Your task to perform on an android device: What's on my calendar tomorrow? Image 0: 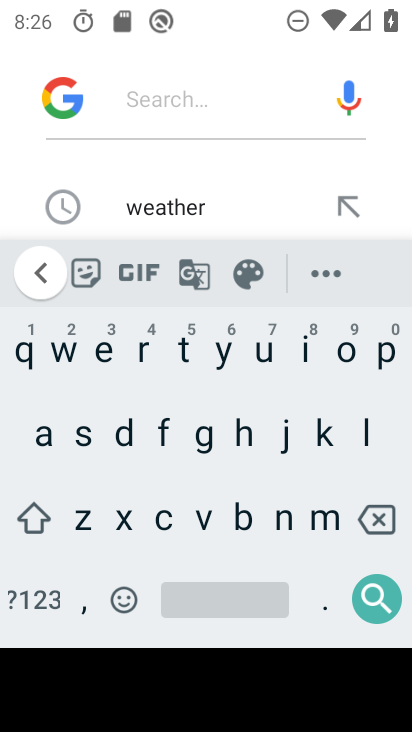
Step 0: press home button
Your task to perform on an android device: What's on my calendar tomorrow? Image 1: 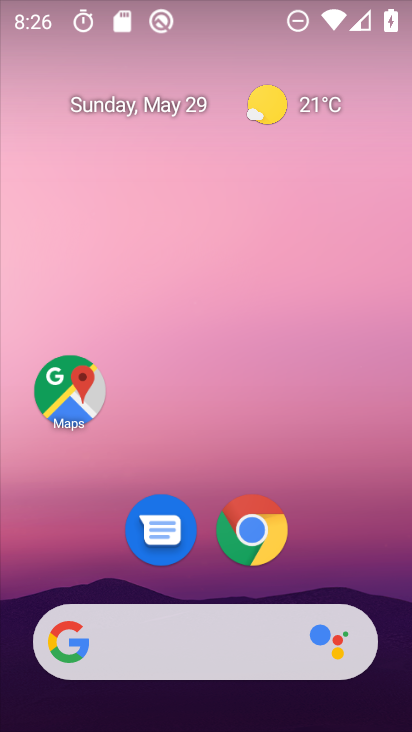
Step 1: drag from (231, 655) to (296, 121)
Your task to perform on an android device: What's on my calendar tomorrow? Image 2: 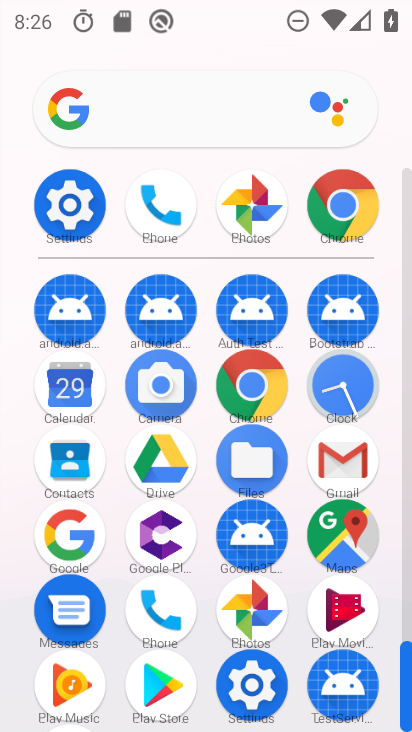
Step 2: click (97, 396)
Your task to perform on an android device: What's on my calendar tomorrow? Image 3: 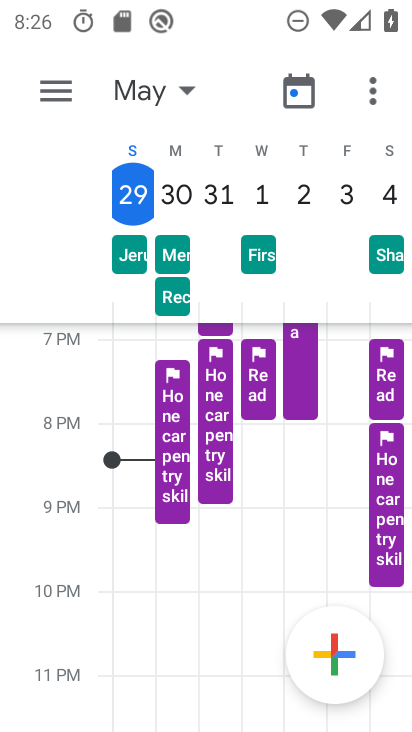
Step 3: click (50, 77)
Your task to perform on an android device: What's on my calendar tomorrow? Image 4: 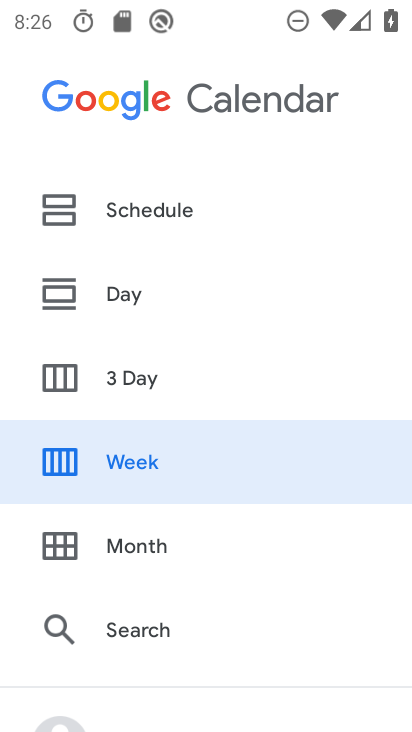
Step 4: click (152, 539)
Your task to perform on an android device: What's on my calendar tomorrow? Image 5: 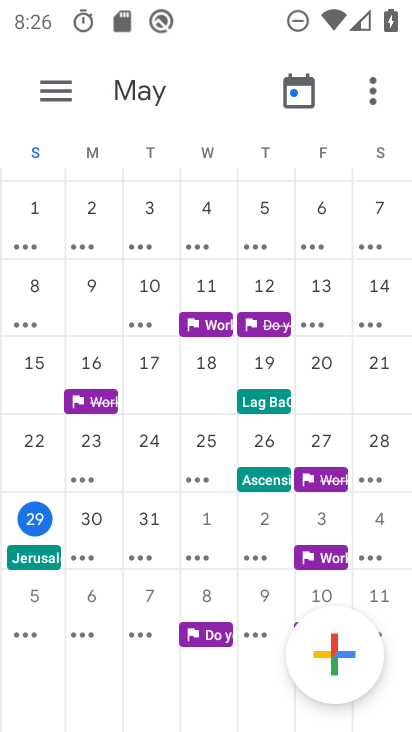
Step 5: click (87, 514)
Your task to perform on an android device: What's on my calendar tomorrow? Image 6: 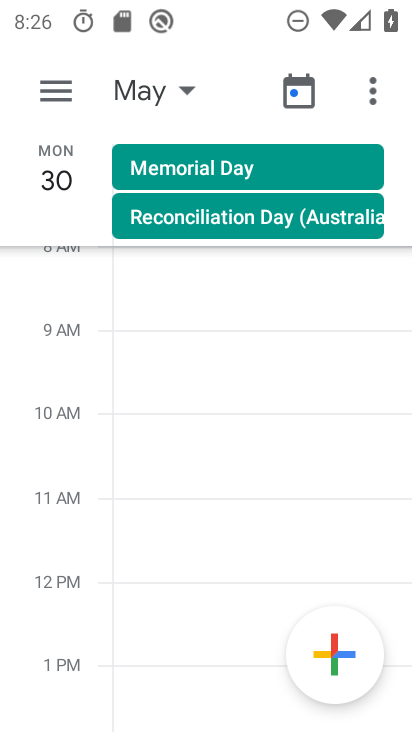
Step 6: task complete